Your task to perform on an android device: check google app version Image 0: 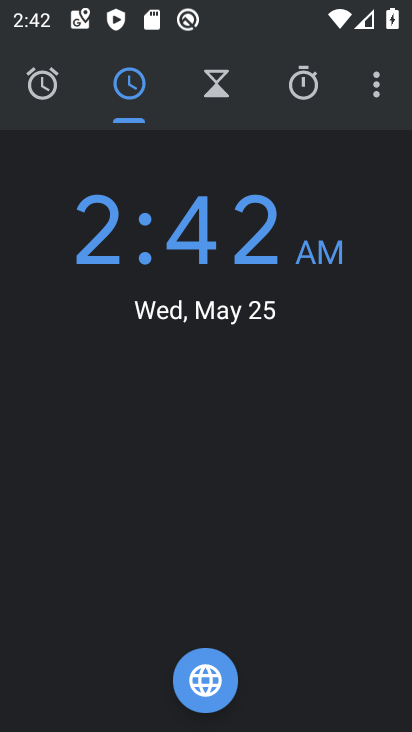
Step 0: press home button
Your task to perform on an android device: check google app version Image 1: 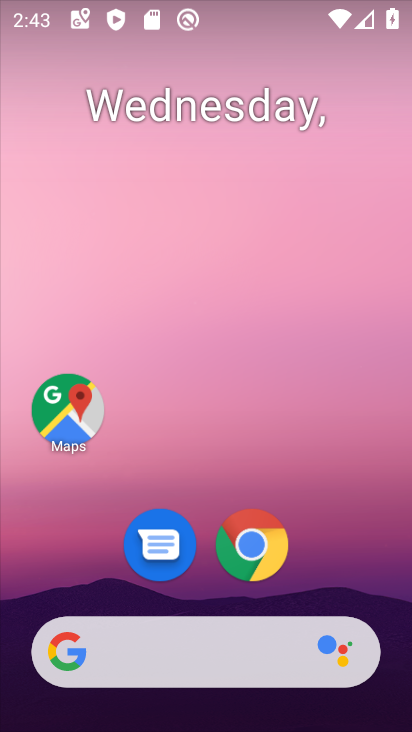
Step 1: drag from (185, 656) to (304, 0)
Your task to perform on an android device: check google app version Image 2: 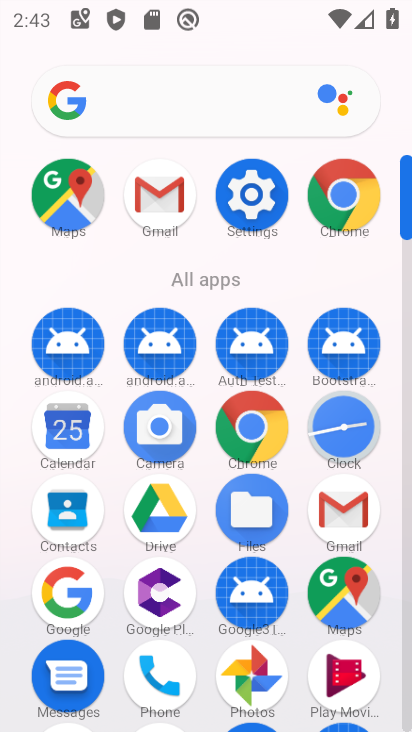
Step 2: click (82, 592)
Your task to perform on an android device: check google app version Image 3: 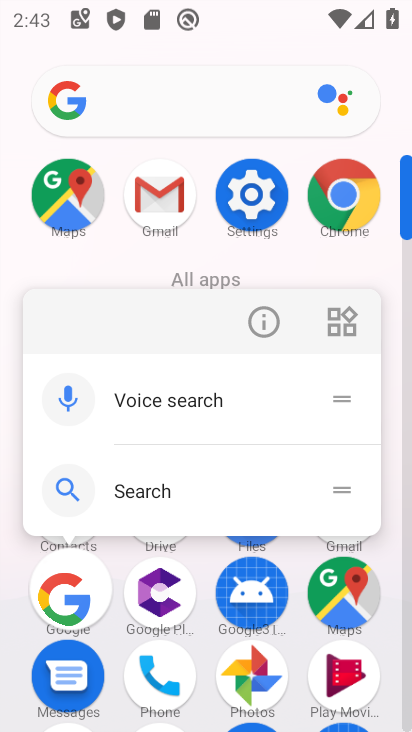
Step 3: click (256, 322)
Your task to perform on an android device: check google app version Image 4: 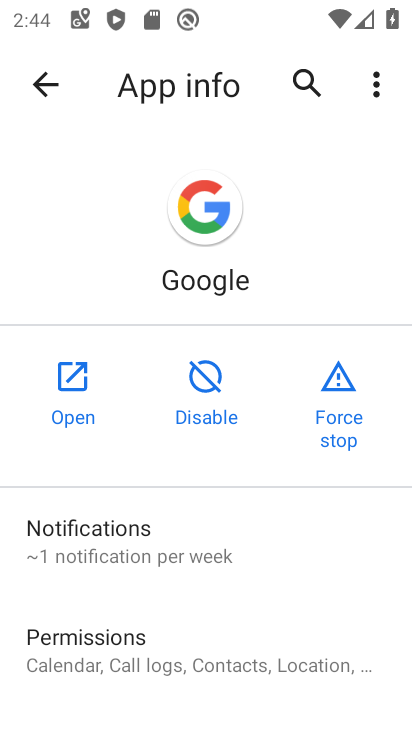
Step 4: drag from (190, 634) to (322, 135)
Your task to perform on an android device: check google app version Image 5: 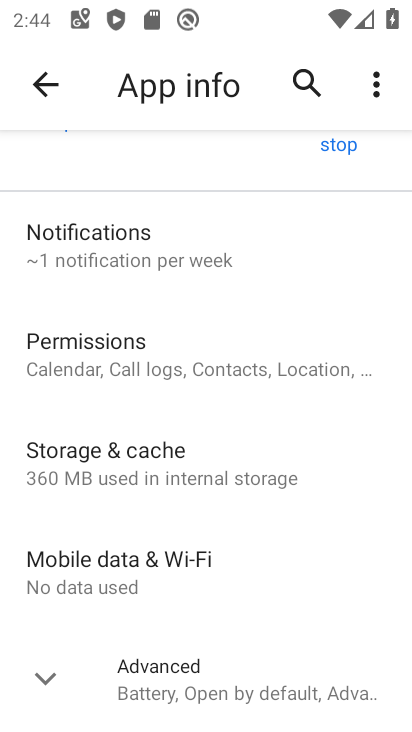
Step 5: drag from (211, 622) to (285, 135)
Your task to perform on an android device: check google app version Image 6: 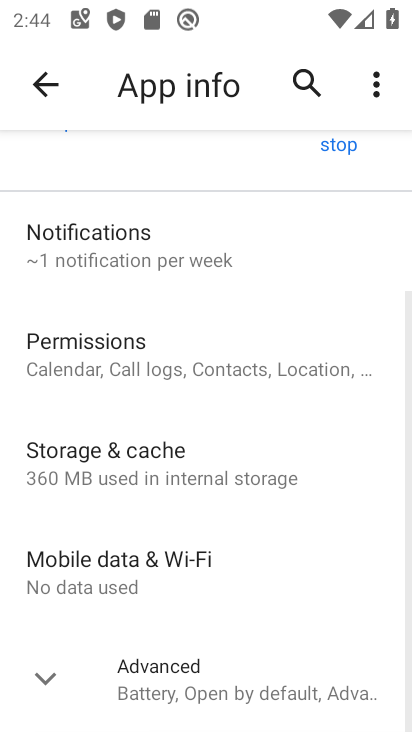
Step 6: click (141, 679)
Your task to perform on an android device: check google app version Image 7: 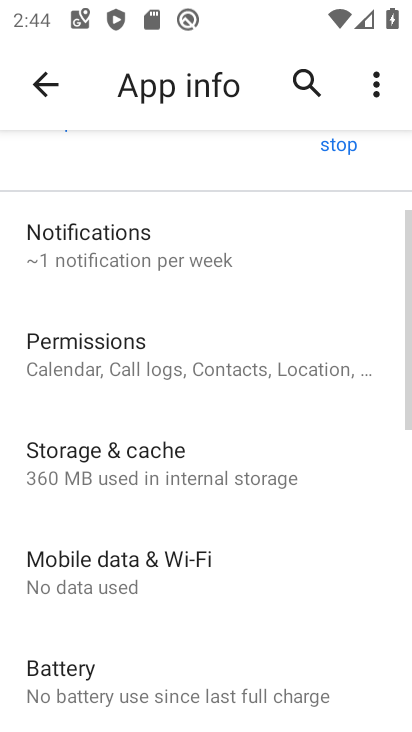
Step 7: task complete